Your task to perform on an android device: Open Google Maps Image 0: 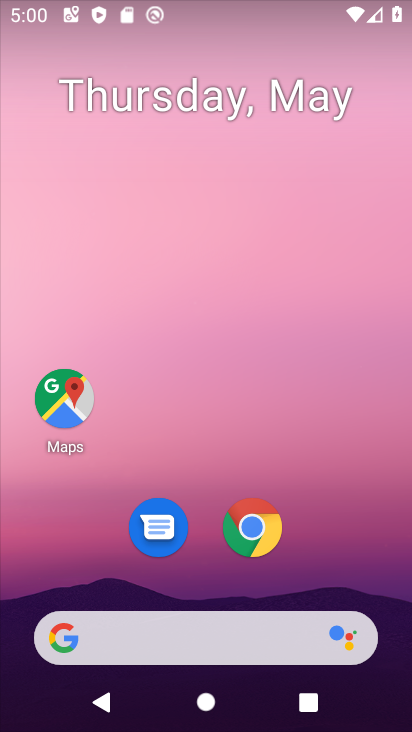
Step 0: drag from (358, 497) to (187, 297)
Your task to perform on an android device: Open Google Maps Image 1: 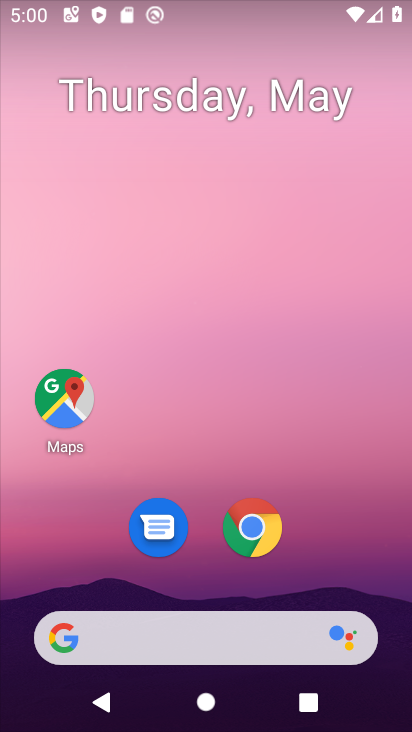
Step 1: drag from (314, 499) to (310, 100)
Your task to perform on an android device: Open Google Maps Image 2: 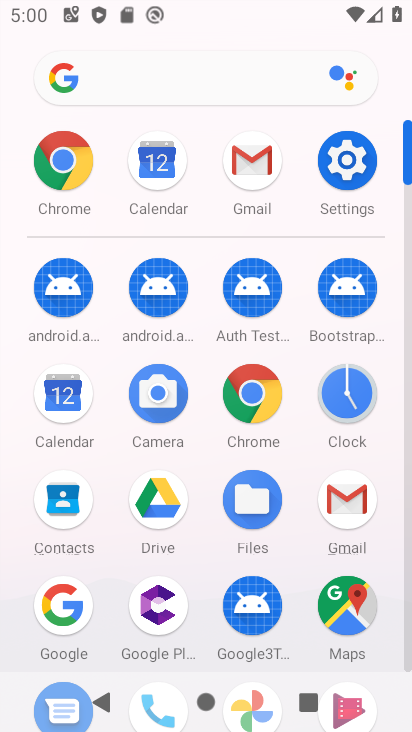
Step 2: click (333, 613)
Your task to perform on an android device: Open Google Maps Image 3: 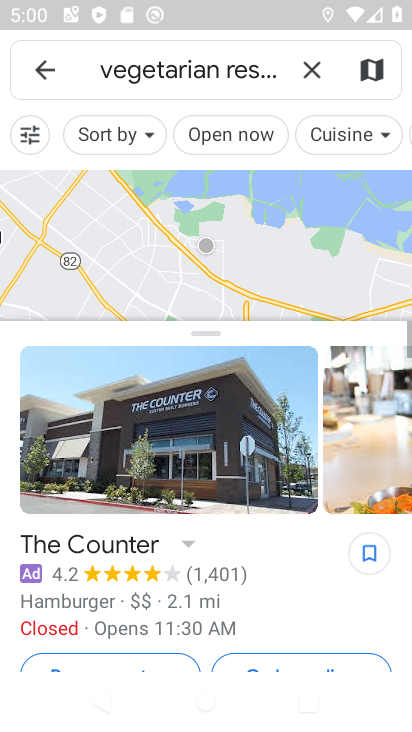
Step 3: task complete